Your task to perform on an android device: toggle notifications settings in the gmail app Image 0: 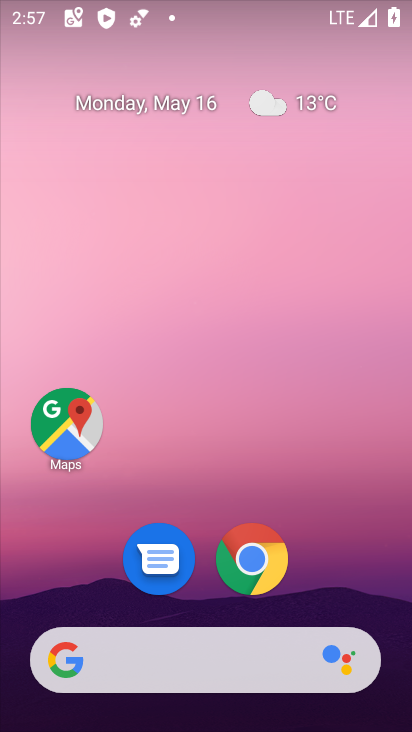
Step 0: drag from (204, 620) to (274, 70)
Your task to perform on an android device: toggle notifications settings in the gmail app Image 1: 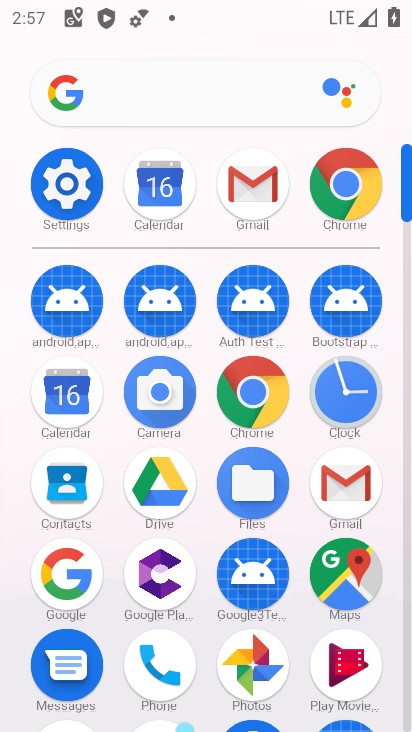
Step 1: click (254, 175)
Your task to perform on an android device: toggle notifications settings in the gmail app Image 2: 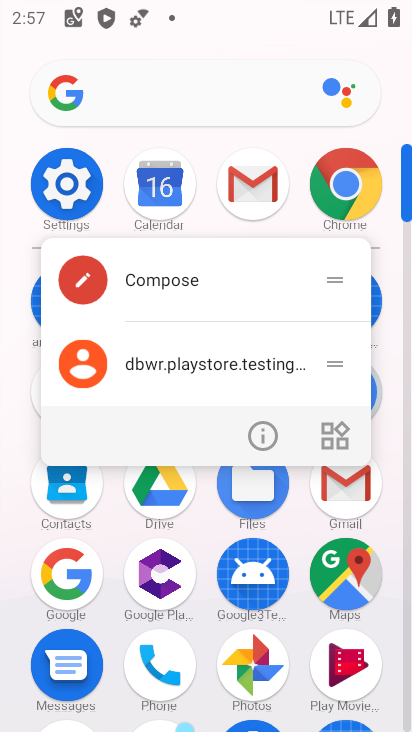
Step 2: click (259, 438)
Your task to perform on an android device: toggle notifications settings in the gmail app Image 3: 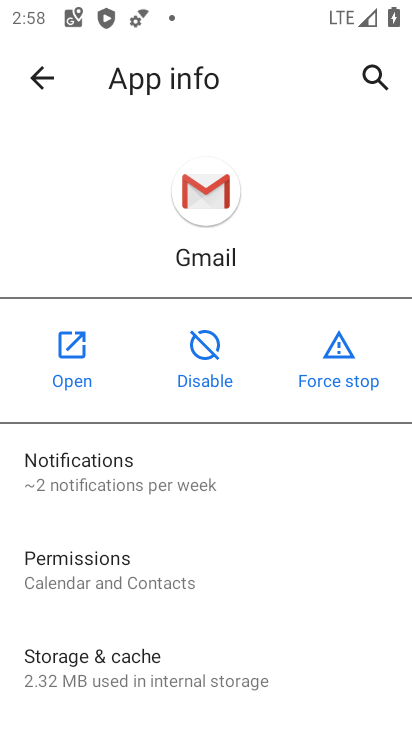
Step 3: click (103, 482)
Your task to perform on an android device: toggle notifications settings in the gmail app Image 4: 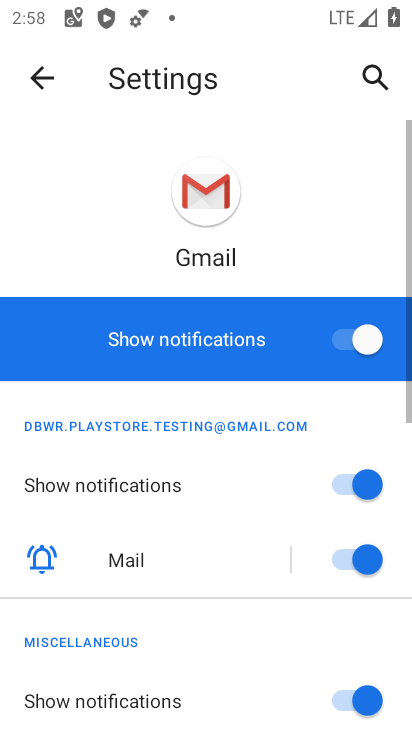
Step 4: click (358, 333)
Your task to perform on an android device: toggle notifications settings in the gmail app Image 5: 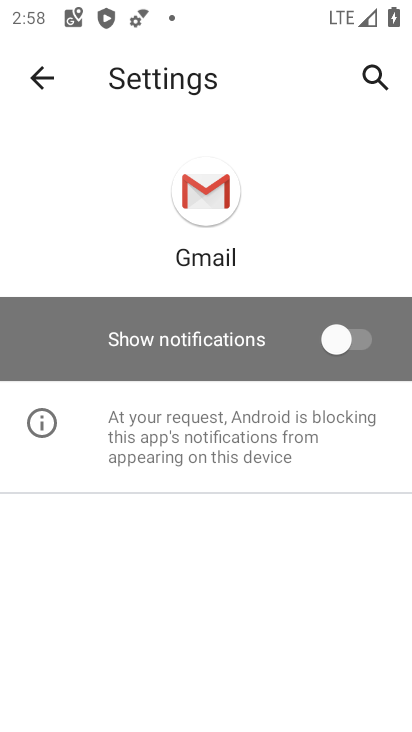
Step 5: task complete